Your task to perform on an android device: open app "Pandora - Music & Podcasts" (install if not already installed) and go to login screen Image 0: 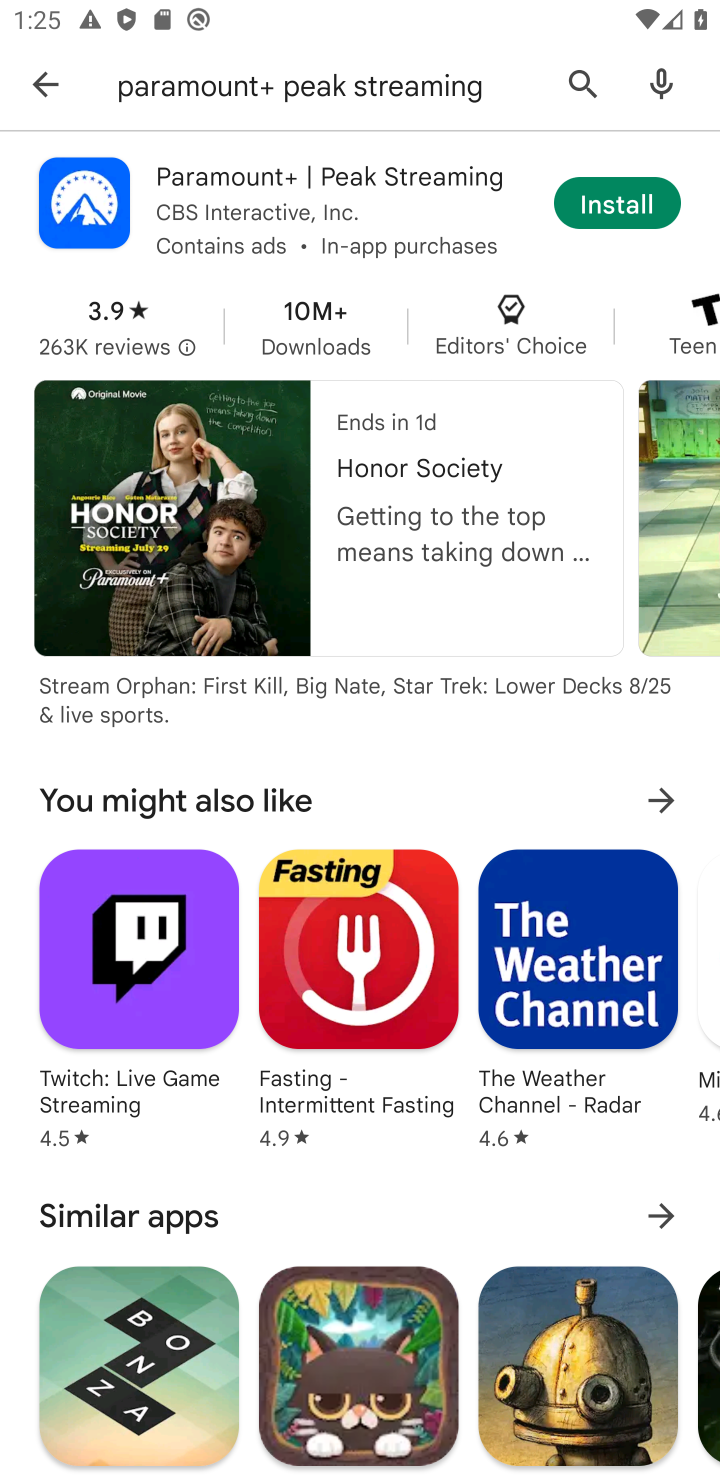
Step 0: click (46, 83)
Your task to perform on an android device: open app "Pandora - Music & Podcasts" (install if not already installed) and go to login screen Image 1: 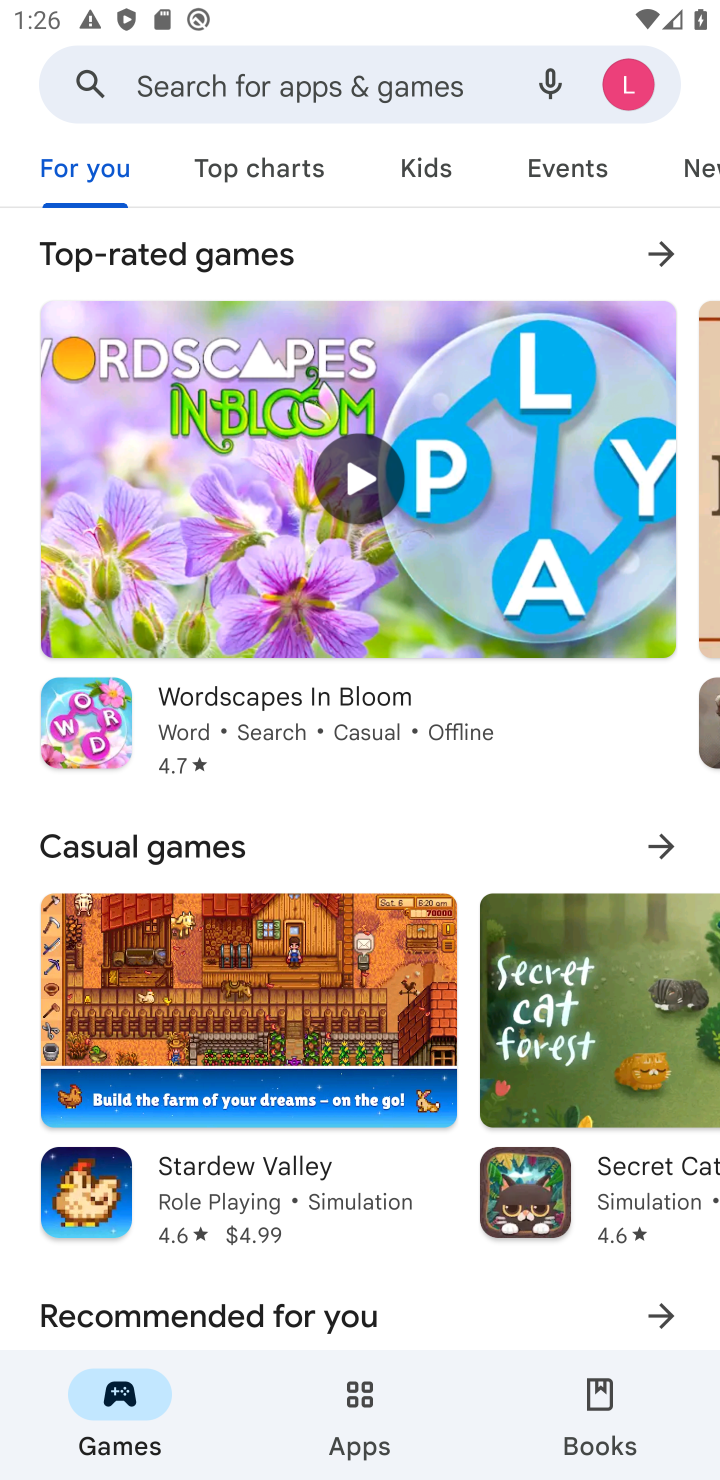
Step 1: click (304, 78)
Your task to perform on an android device: open app "Pandora - Music & Podcasts" (install if not already installed) and go to login screen Image 2: 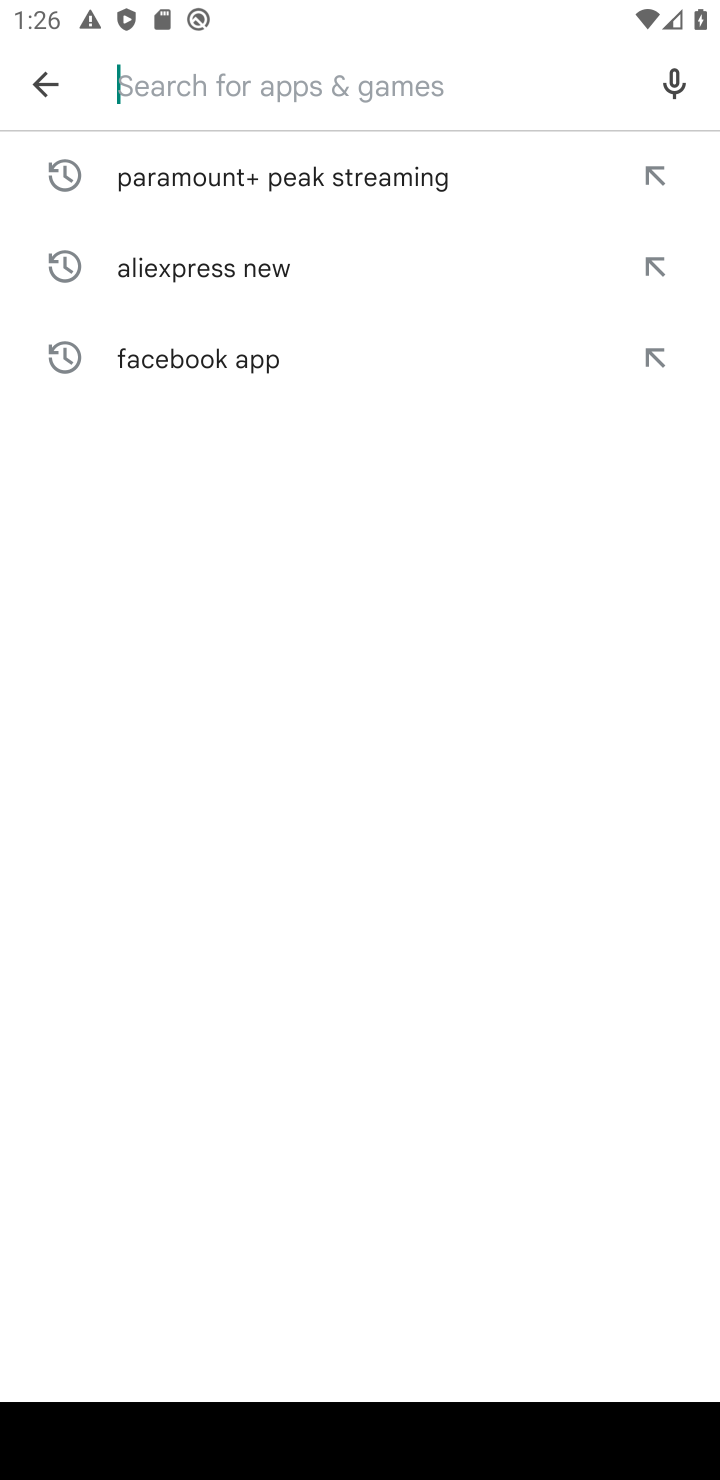
Step 2: type "Pandora "
Your task to perform on an android device: open app "Pandora - Music & Podcasts" (install if not already installed) and go to login screen Image 3: 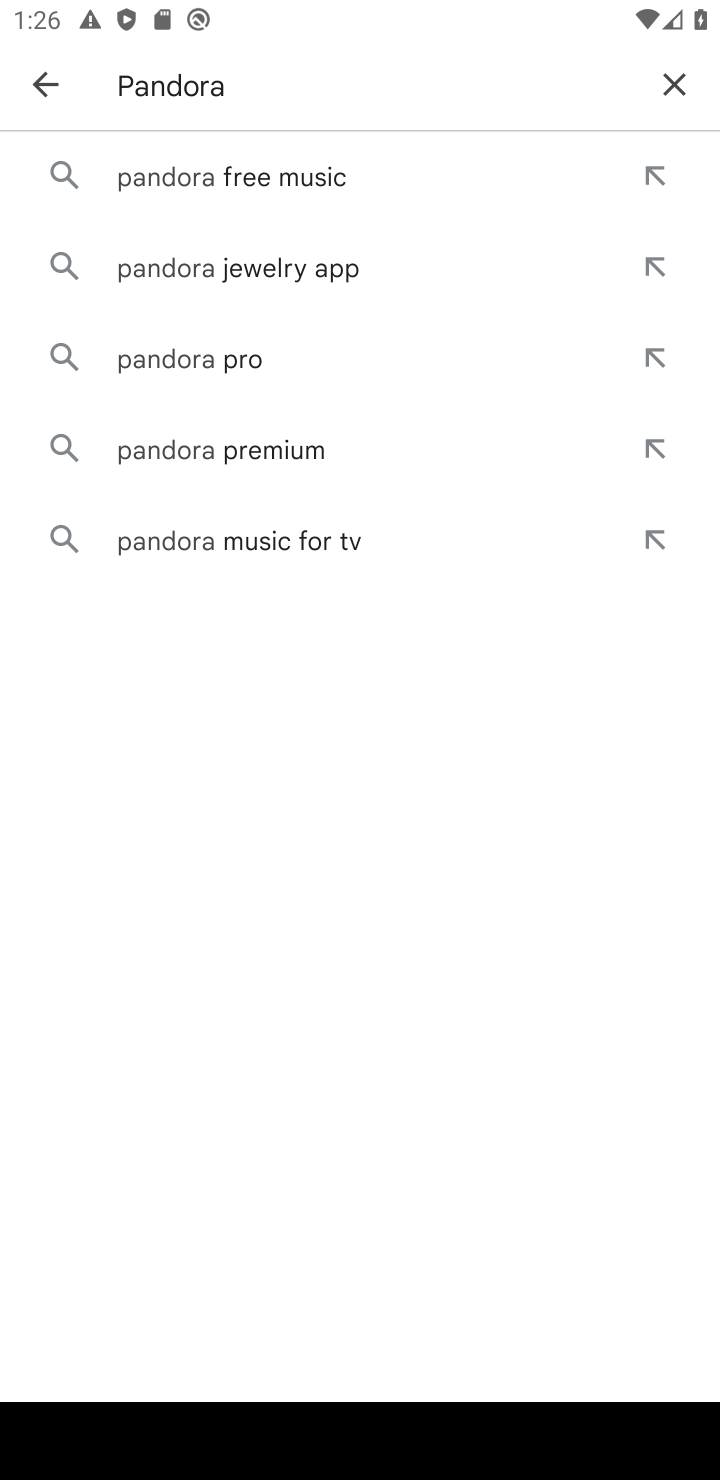
Step 3: click (184, 360)
Your task to perform on an android device: open app "Pandora - Music & Podcasts" (install if not already installed) and go to login screen Image 4: 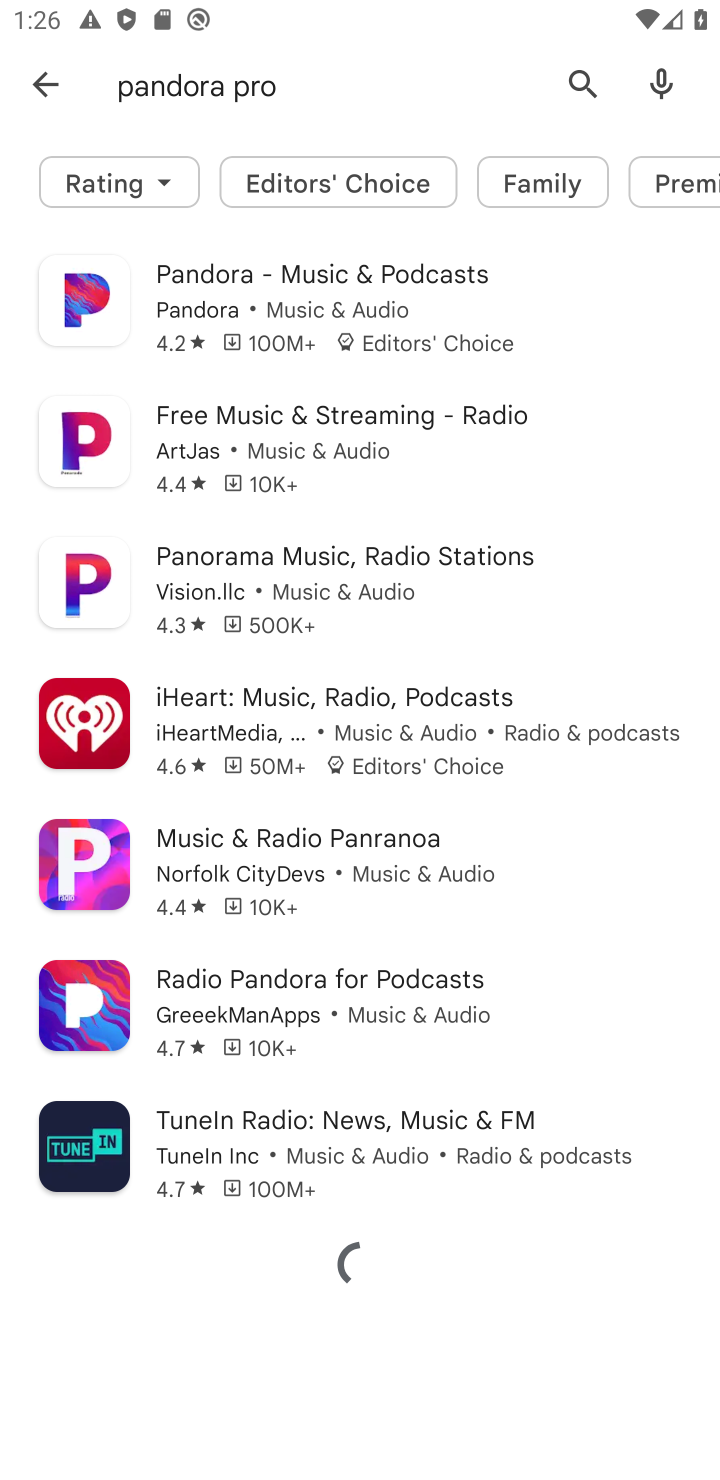
Step 4: click (242, 275)
Your task to perform on an android device: open app "Pandora - Music & Podcasts" (install if not already installed) and go to login screen Image 5: 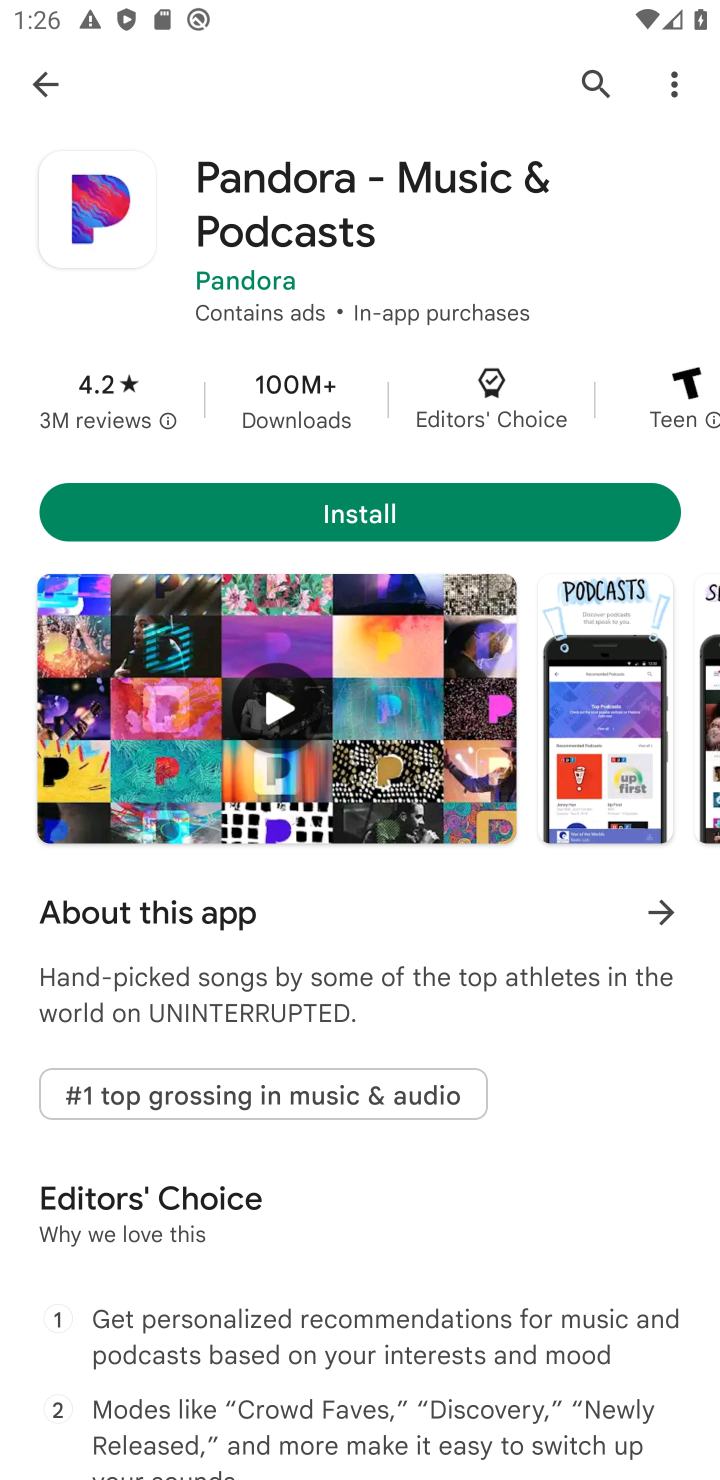
Step 5: click (386, 492)
Your task to perform on an android device: open app "Pandora - Music & Podcasts" (install if not already installed) and go to login screen Image 6: 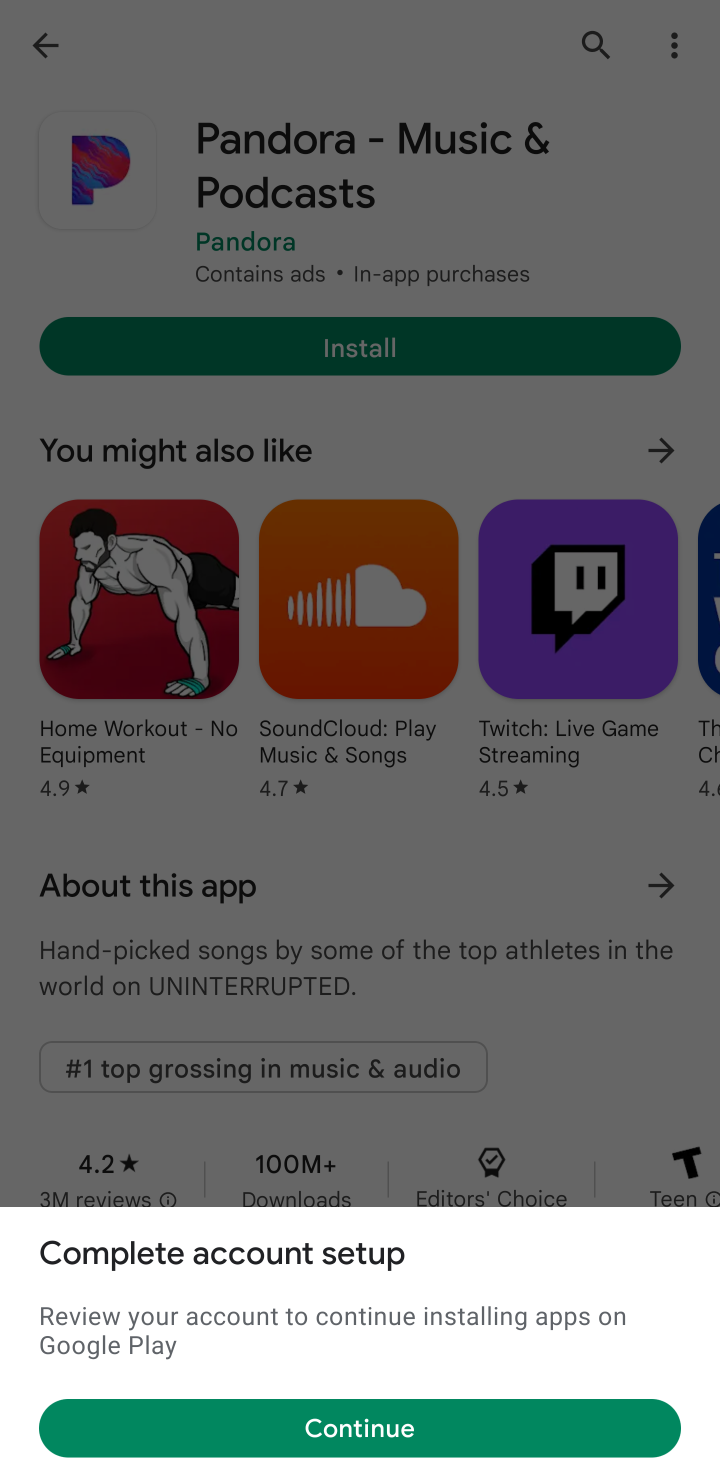
Step 6: task complete